Your task to perform on an android device: delete the emails in spam in the gmail app Image 0: 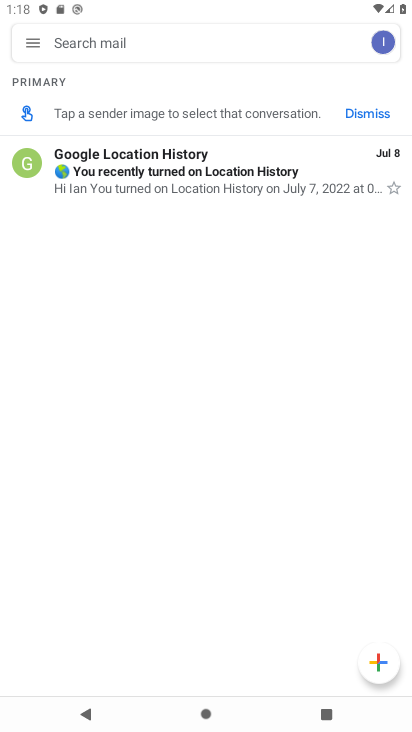
Step 0: press home button
Your task to perform on an android device: delete the emails in spam in the gmail app Image 1: 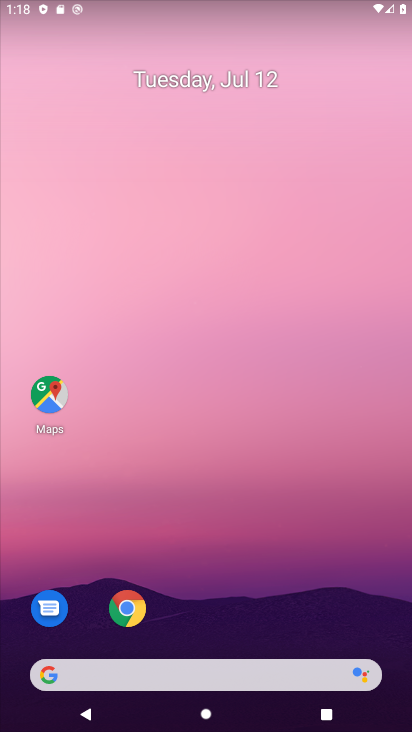
Step 1: drag from (260, 630) to (199, 0)
Your task to perform on an android device: delete the emails in spam in the gmail app Image 2: 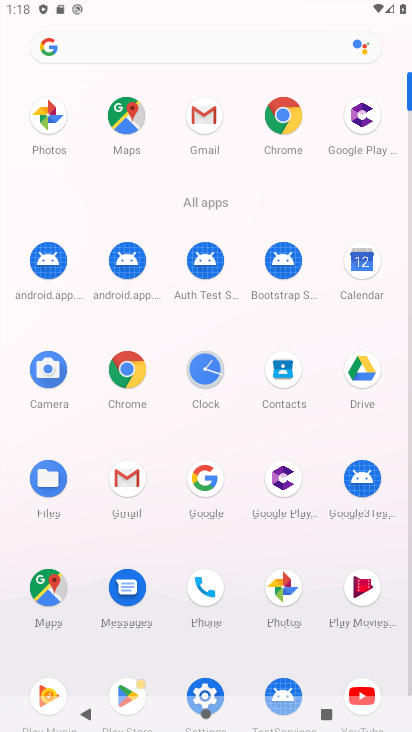
Step 2: click (137, 483)
Your task to perform on an android device: delete the emails in spam in the gmail app Image 3: 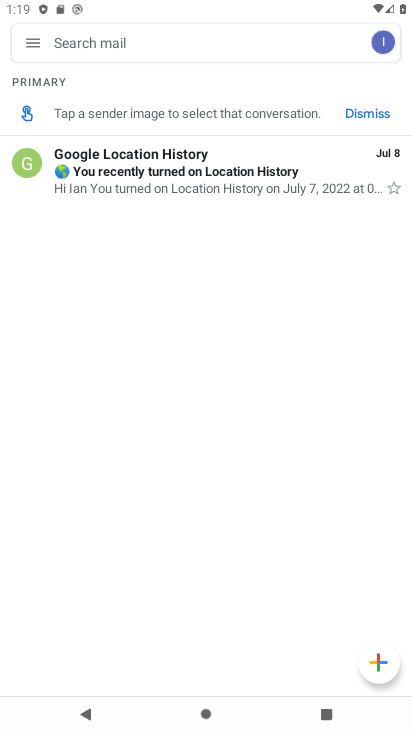
Step 3: click (112, 154)
Your task to perform on an android device: delete the emails in spam in the gmail app Image 4: 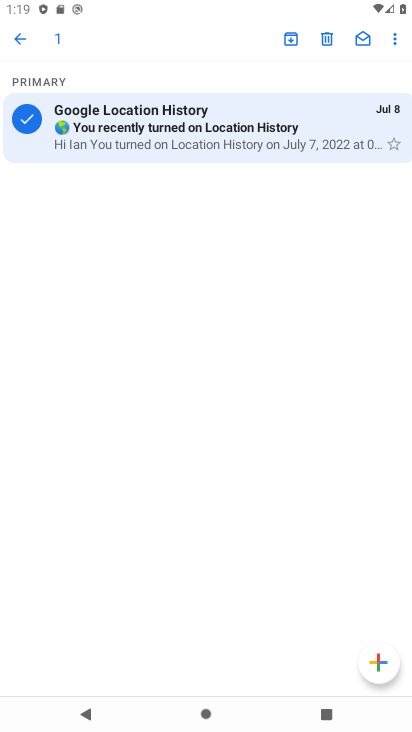
Step 4: click (27, 35)
Your task to perform on an android device: delete the emails in spam in the gmail app Image 5: 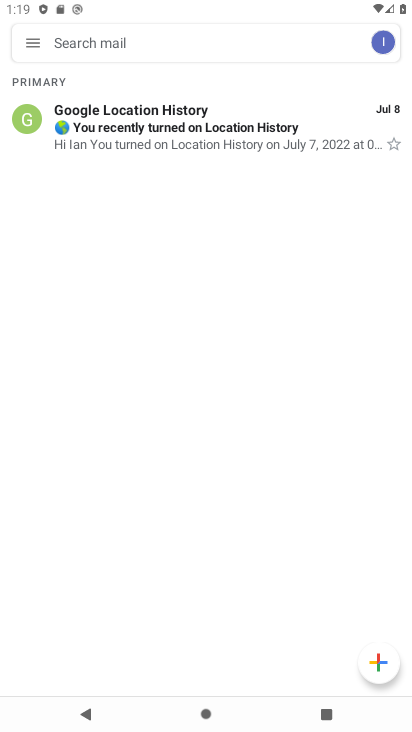
Step 5: click (27, 35)
Your task to perform on an android device: delete the emails in spam in the gmail app Image 6: 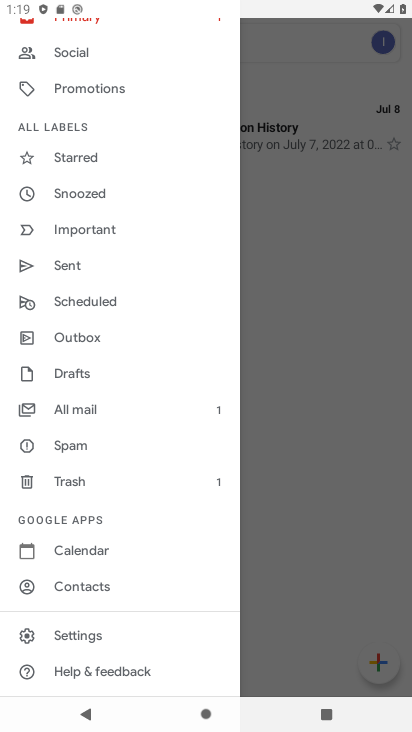
Step 6: click (83, 446)
Your task to perform on an android device: delete the emails in spam in the gmail app Image 7: 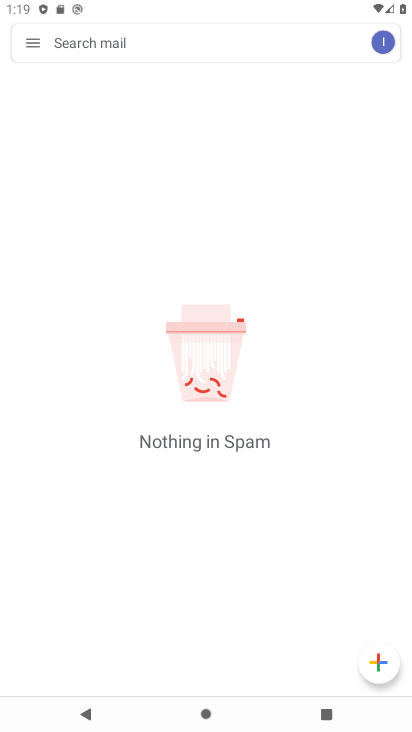
Step 7: task complete